Your task to perform on an android device: What's on my calendar tomorrow? Image 0: 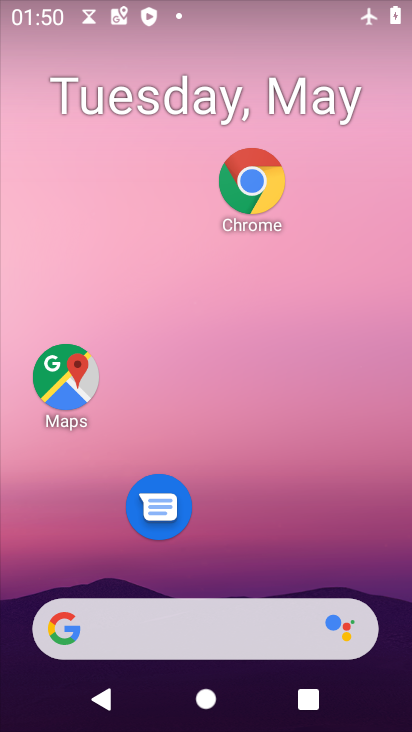
Step 0: drag from (277, 542) to (281, 281)
Your task to perform on an android device: What's on my calendar tomorrow? Image 1: 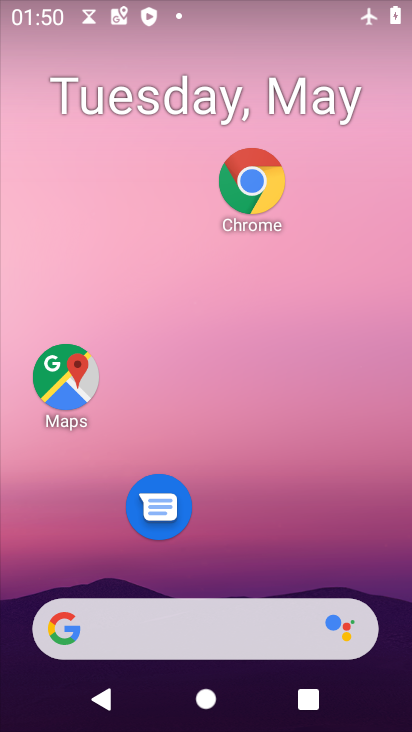
Step 1: drag from (290, 377) to (295, 269)
Your task to perform on an android device: What's on my calendar tomorrow? Image 2: 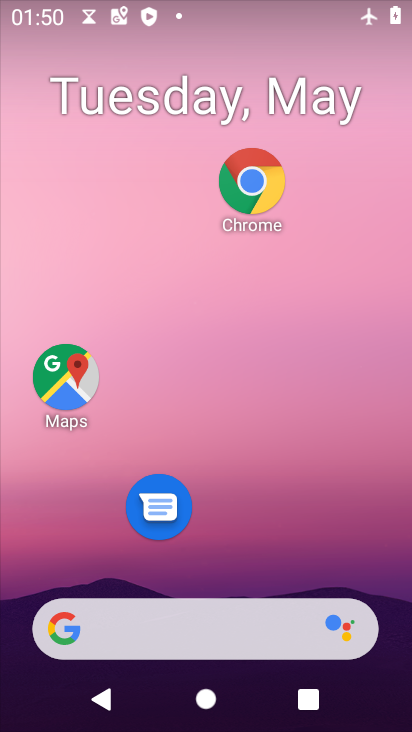
Step 2: drag from (250, 577) to (296, 281)
Your task to perform on an android device: What's on my calendar tomorrow? Image 3: 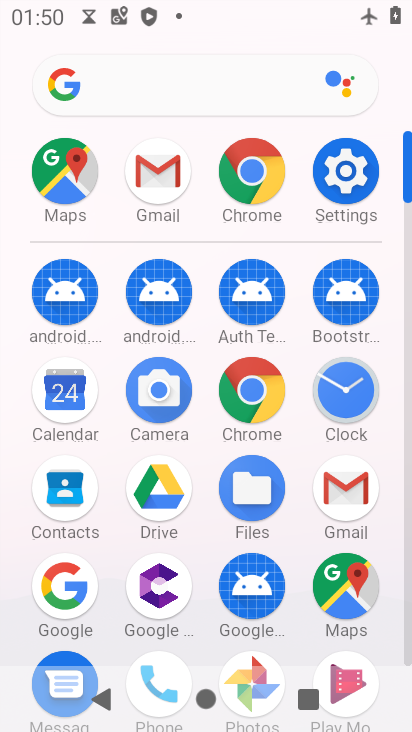
Step 3: click (57, 402)
Your task to perform on an android device: What's on my calendar tomorrow? Image 4: 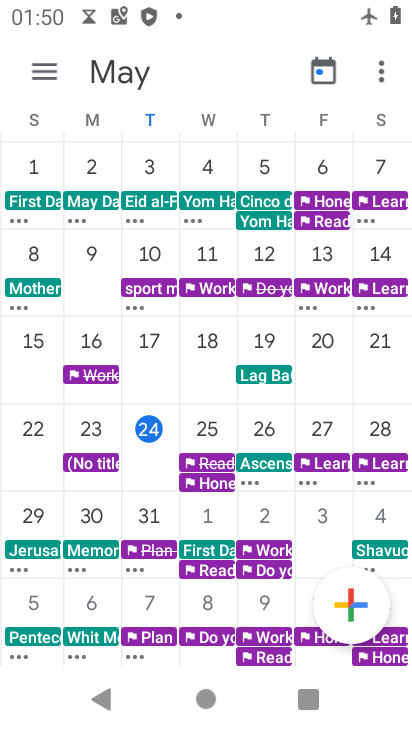
Step 4: task complete